Your task to perform on an android device: What's the weather going to be this weekend? Image 0: 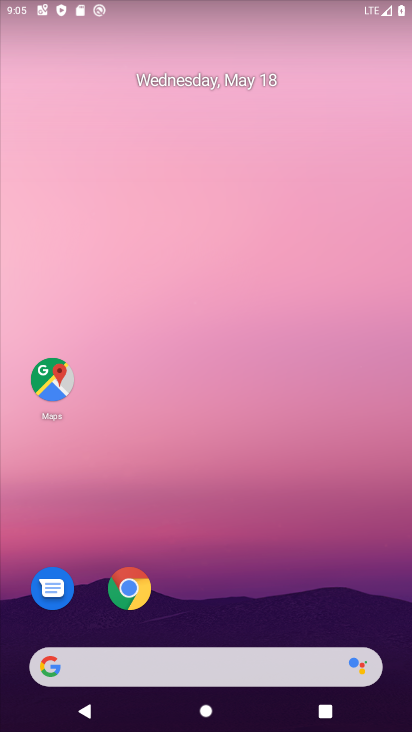
Step 0: drag from (236, 632) to (214, 4)
Your task to perform on an android device: What's the weather going to be this weekend? Image 1: 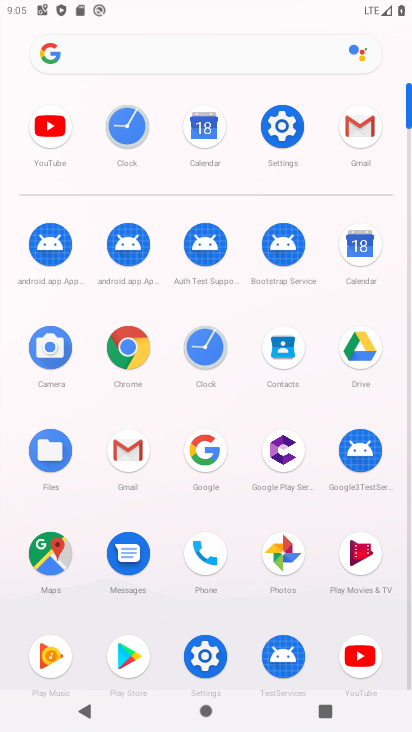
Step 1: click (104, 51)
Your task to perform on an android device: What's the weather going to be this weekend? Image 2: 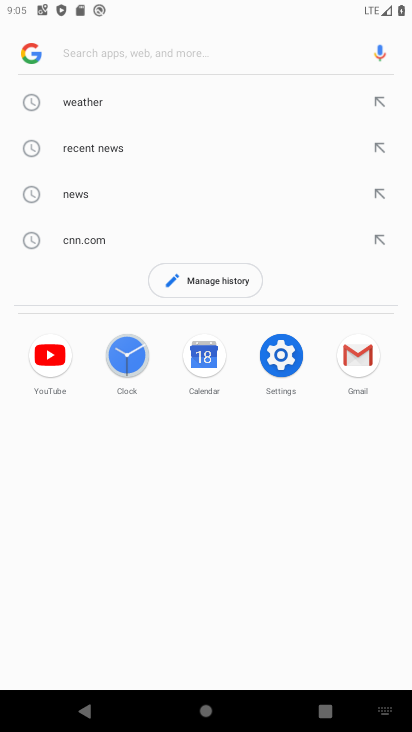
Step 2: click (78, 109)
Your task to perform on an android device: What's the weather going to be this weekend? Image 3: 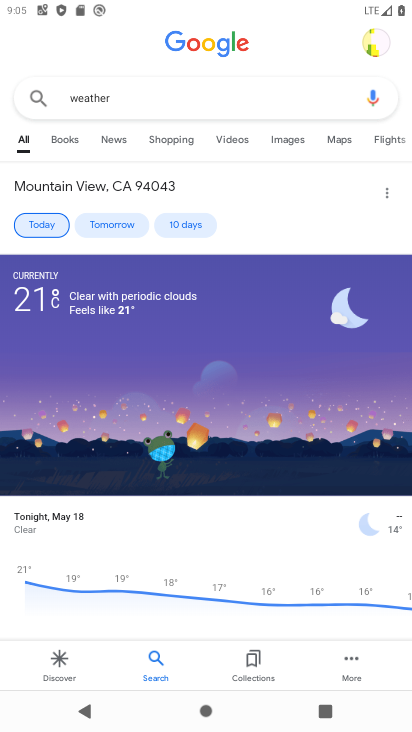
Step 3: click (173, 224)
Your task to perform on an android device: What's the weather going to be this weekend? Image 4: 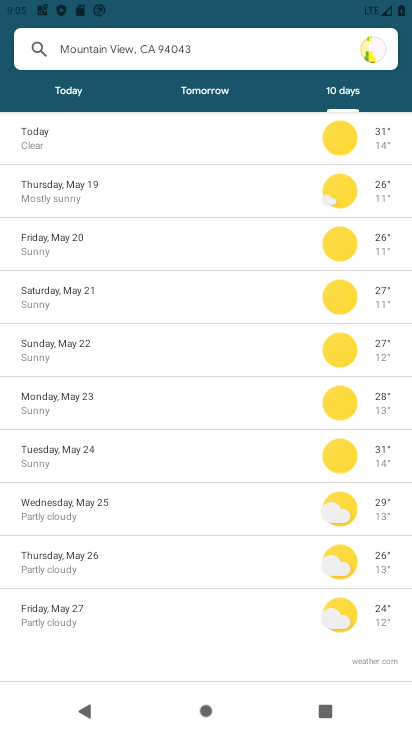
Step 4: task complete